Your task to perform on an android device: Toggle the flashlight Image 0: 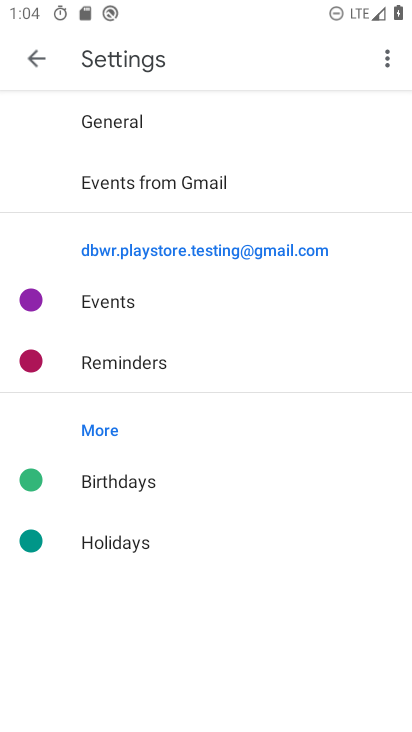
Step 0: press home button
Your task to perform on an android device: Toggle the flashlight Image 1: 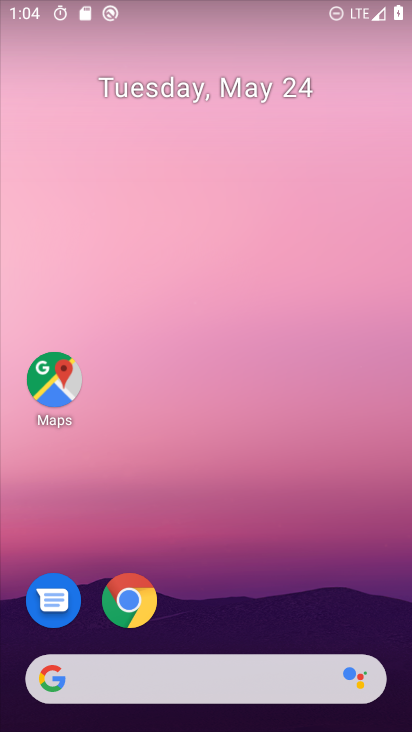
Step 1: drag from (291, 560) to (290, 57)
Your task to perform on an android device: Toggle the flashlight Image 2: 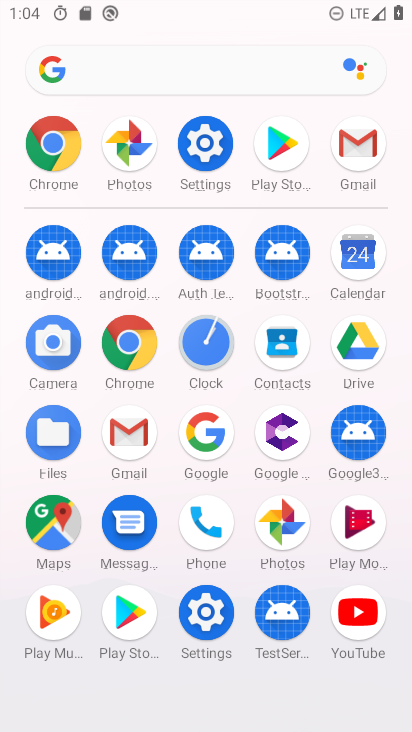
Step 2: click (201, 140)
Your task to perform on an android device: Toggle the flashlight Image 3: 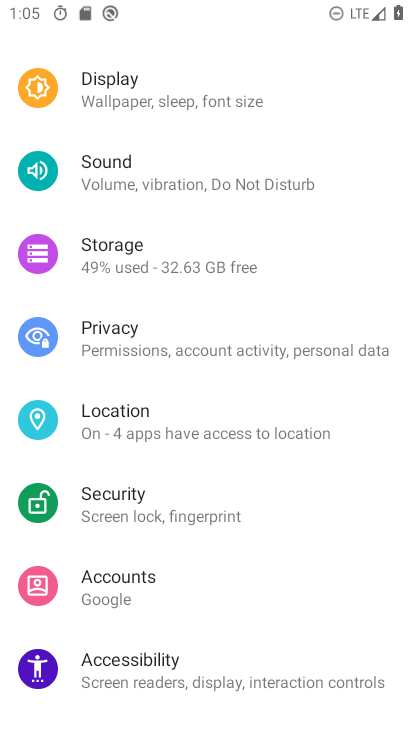
Step 3: drag from (223, 170) to (178, 517)
Your task to perform on an android device: Toggle the flashlight Image 4: 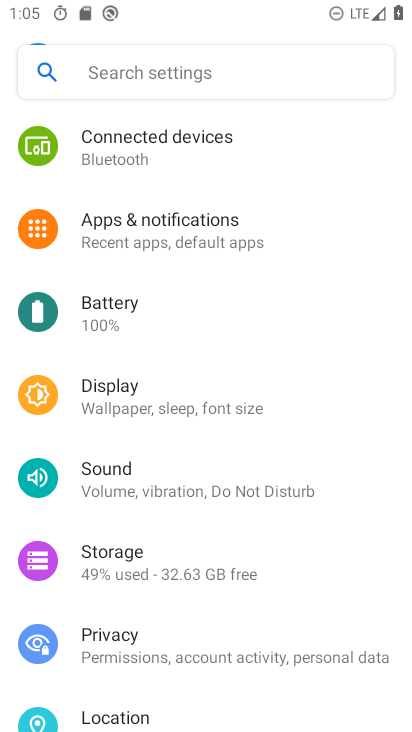
Step 4: click (177, 410)
Your task to perform on an android device: Toggle the flashlight Image 5: 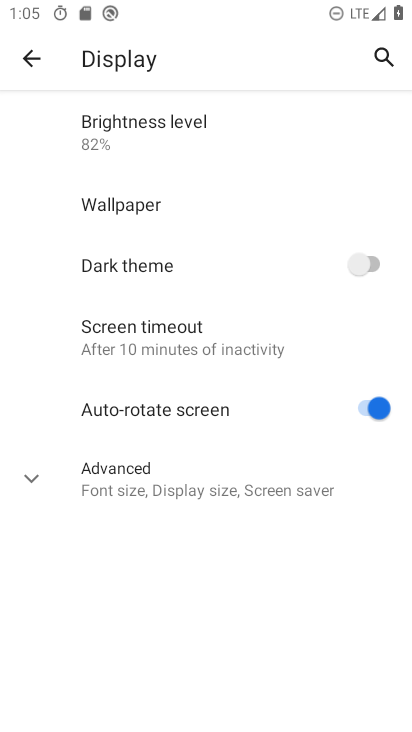
Step 5: task complete